Your task to perform on an android device: Open network settings Image 0: 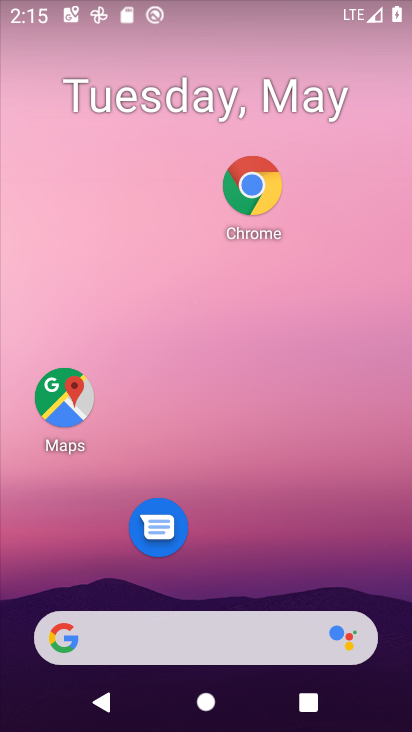
Step 0: drag from (272, 544) to (118, 94)
Your task to perform on an android device: Open network settings Image 1: 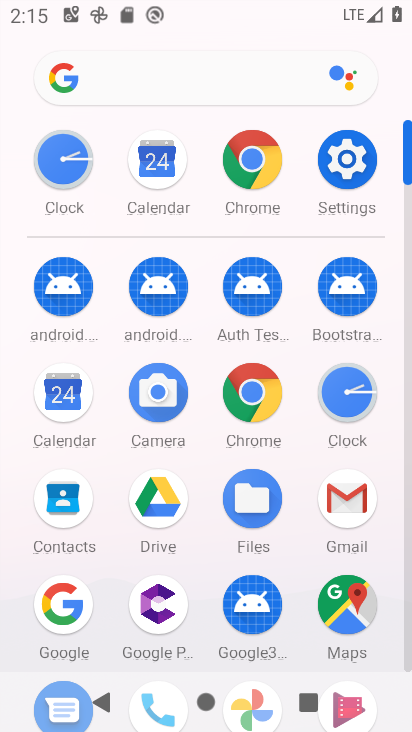
Step 1: click (336, 166)
Your task to perform on an android device: Open network settings Image 2: 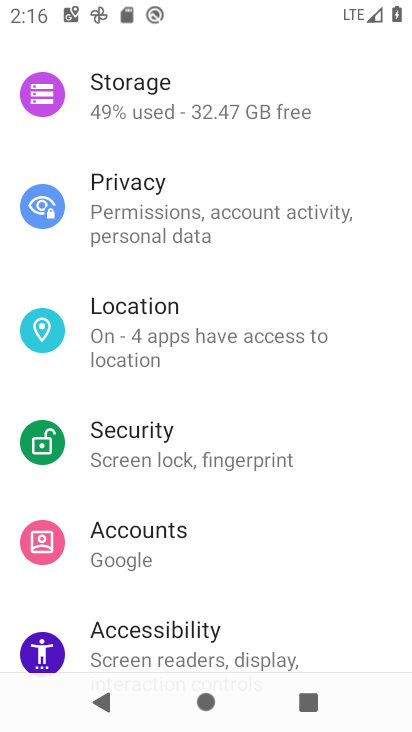
Step 2: drag from (184, 241) to (218, 548)
Your task to perform on an android device: Open network settings Image 3: 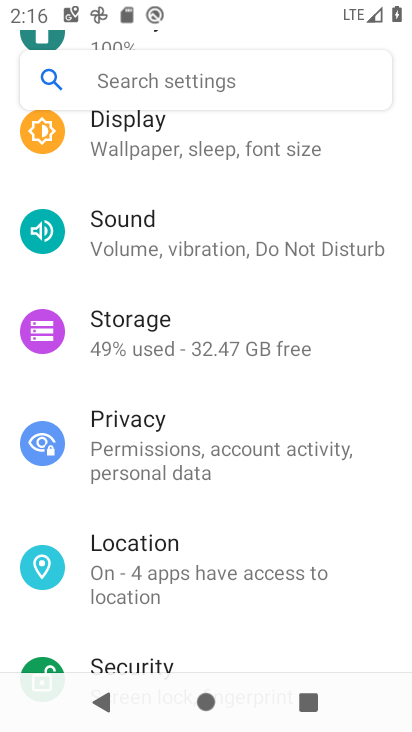
Step 3: drag from (171, 188) to (248, 568)
Your task to perform on an android device: Open network settings Image 4: 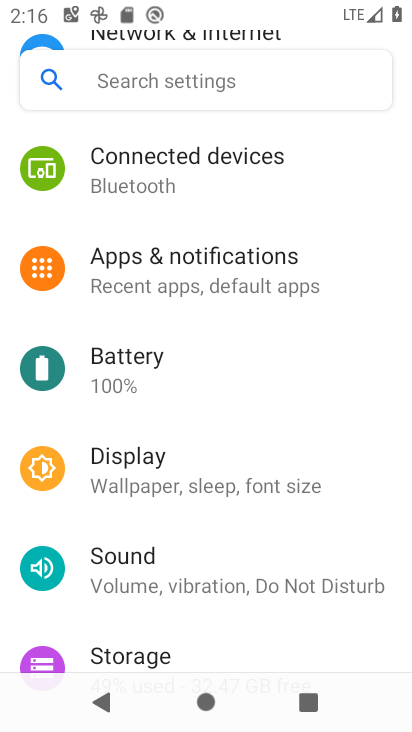
Step 4: drag from (223, 318) to (346, 723)
Your task to perform on an android device: Open network settings Image 5: 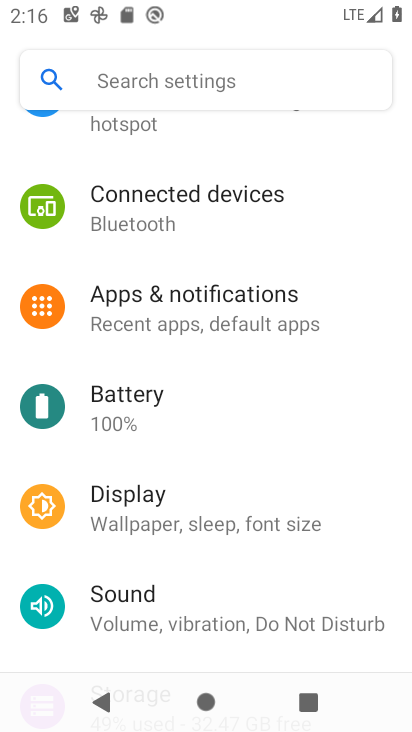
Step 5: drag from (167, 160) to (220, 465)
Your task to perform on an android device: Open network settings Image 6: 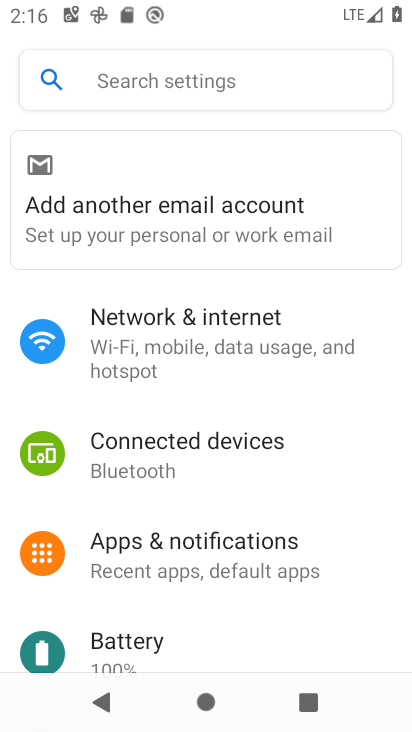
Step 6: click (190, 337)
Your task to perform on an android device: Open network settings Image 7: 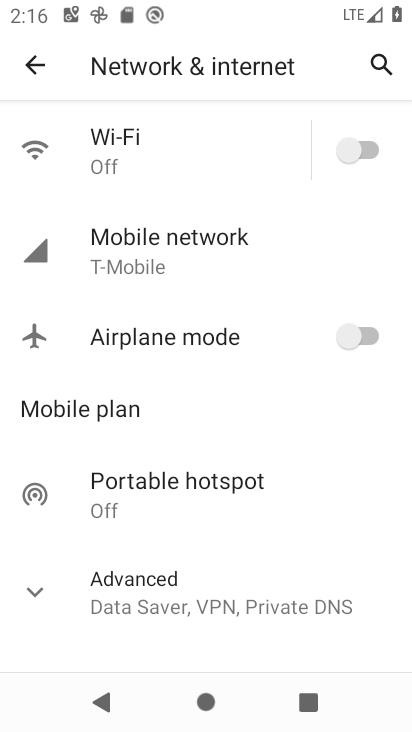
Step 7: task complete